Your task to perform on an android device: toggle pop-ups in chrome Image 0: 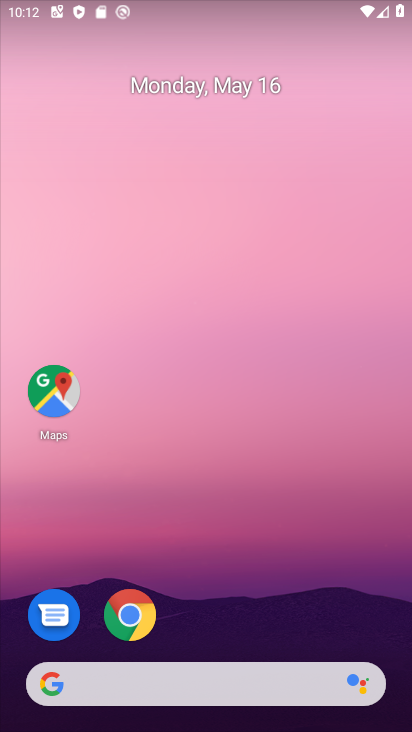
Step 0: drag from (269, 686) to (251, 277)
Your task to perform on an android device: toggle pop-ups in chrome Image 1: 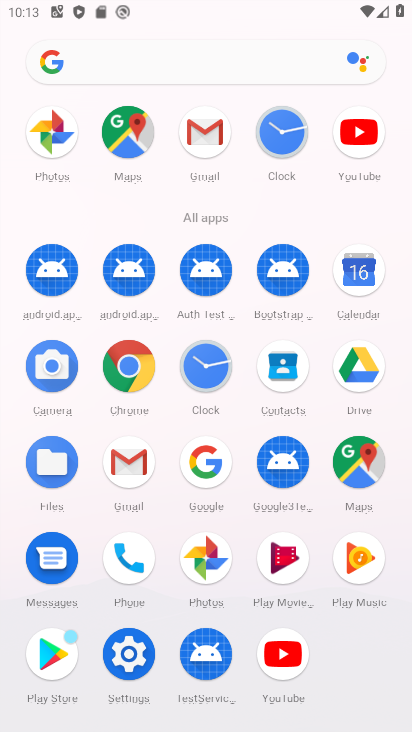
Step 1: click (107, 363)
Your task to perform on an android device: toggle pop-ups in chrome Image 2: 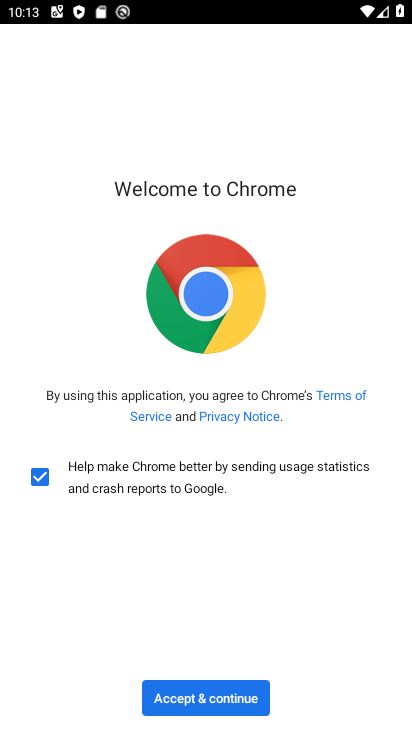
Step 2: click (184, 686)
Your task to perform on an android device: toggle pop-ups in chrome Image 3: 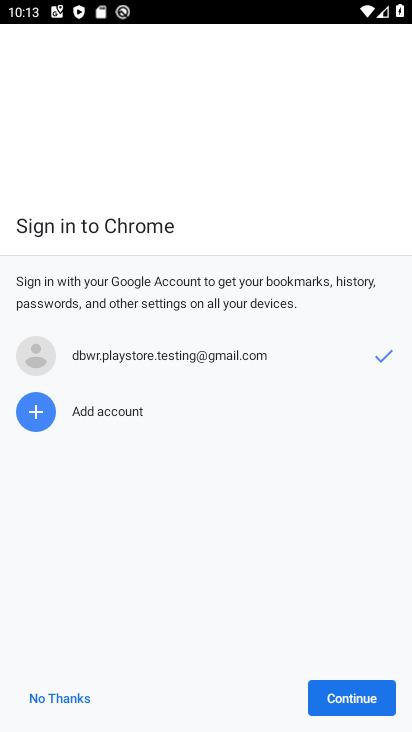
Step 3: click (346, 705)
Your task to perform on an android device: toggle pop-ups in chrome Image 4: 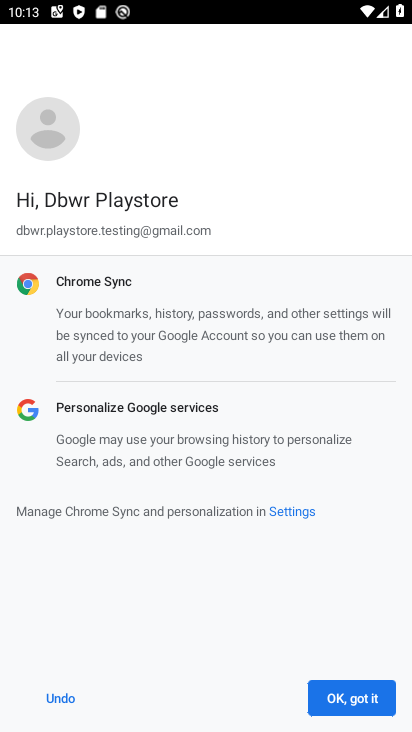
Step 4: click (317, 720)
Your task to perform on an android device: toggle pop-ups in chrome Image 5: 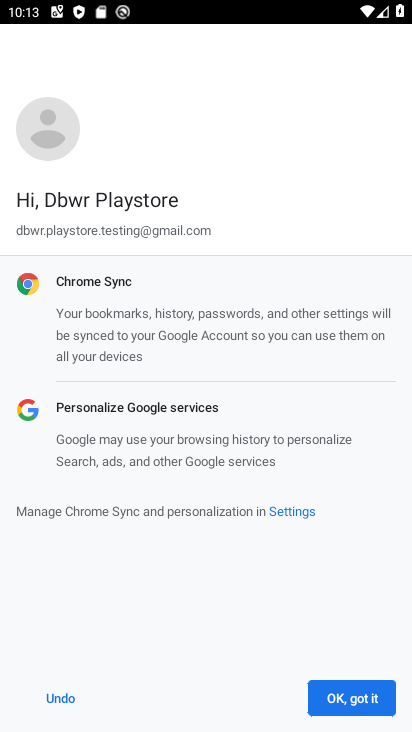
Step 5: click (362, 687)
Your task to perform on an android device: toggle pop-ups in chrome Image 6: 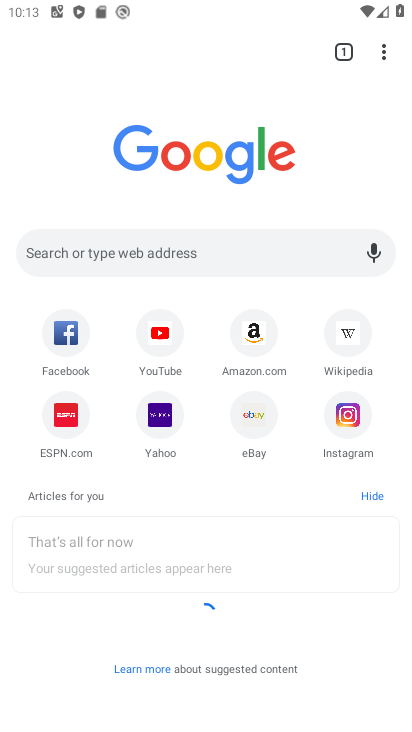
Step 6: click (375, 73)
Your task to perform on an android device: toggle pop-ups in chrome Image 7: 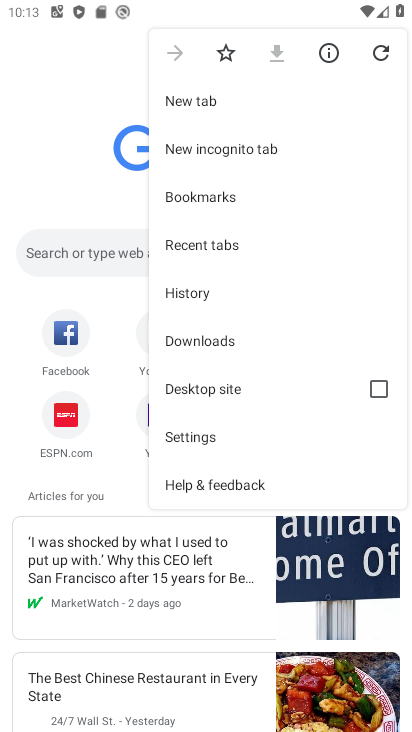
Step 7: click (238, 424)
Your task to perform on an android device: toggle pop-ups in chrome Image 8: 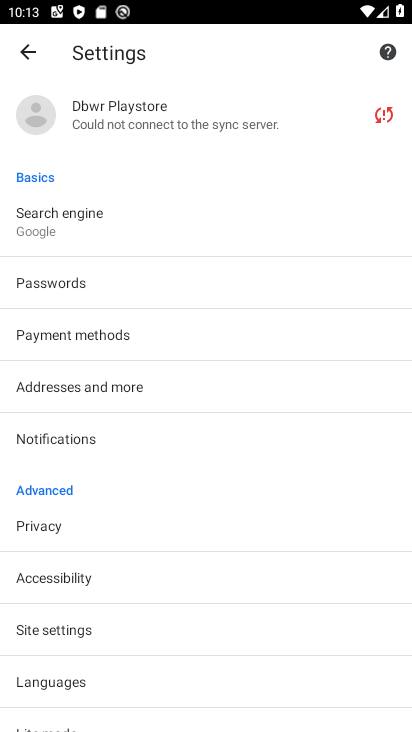
Step 8: click (98, 620)
Your task to perform on an android device: toggle pop-ups in chrome Image 9: 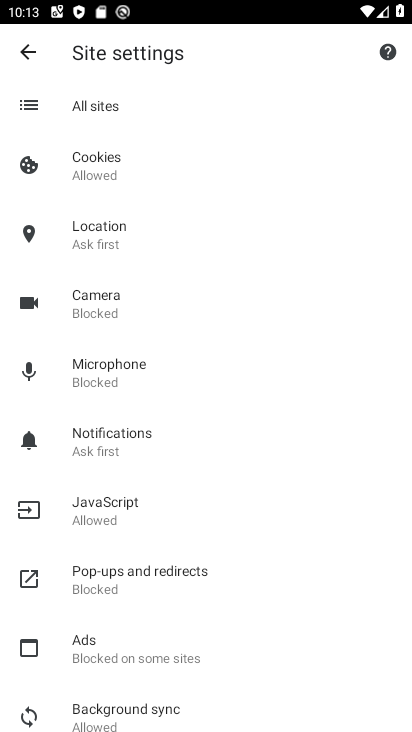
Step 9: click (164, 569)
Your task to perform on an android device: toggle pop-ups in chrome Image 10: 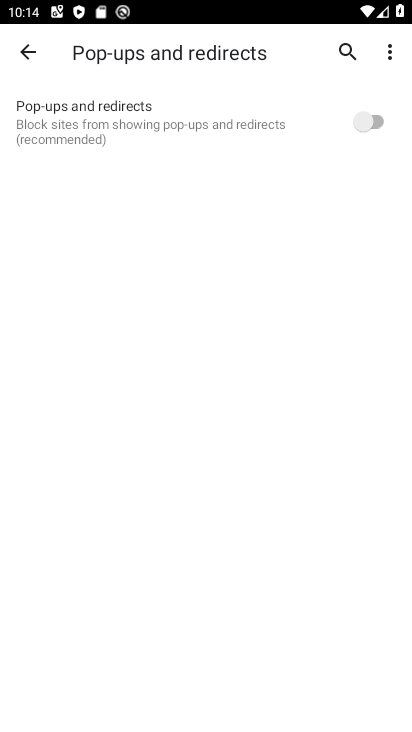
Step 10: click (364, 123)
Your task to perform on an android device: toggle pop-ups in chrome Image 11: 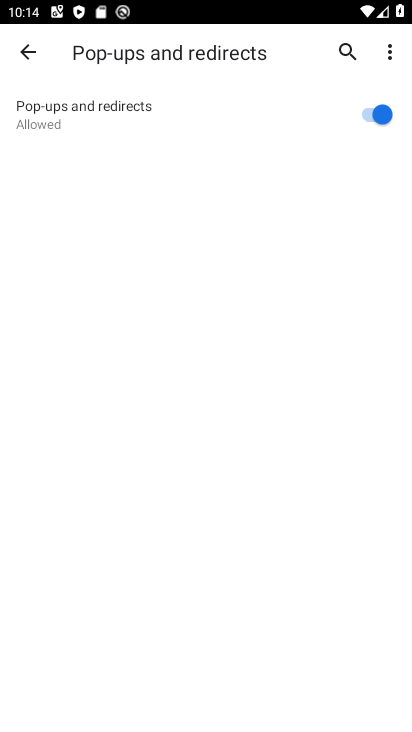
Step 11: task complete